Your task to perform on an android device: see tabs open on other devices in the chrome app Image 0: 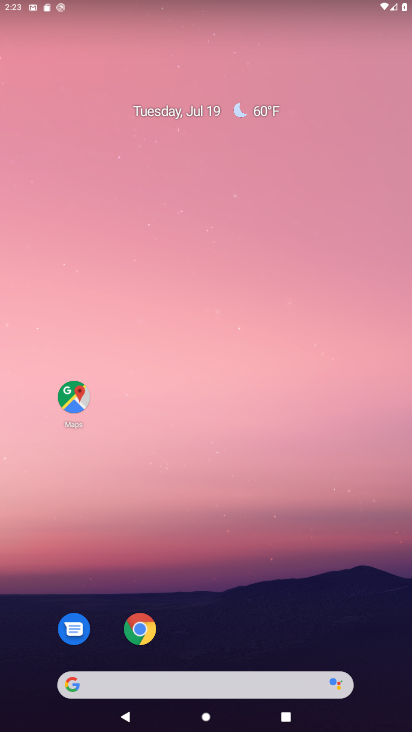
Step 0: drag from (279, 538) to (274, 247)
Your task to perform on an android device: see tabs open on other devices in the chrome app Image 1: 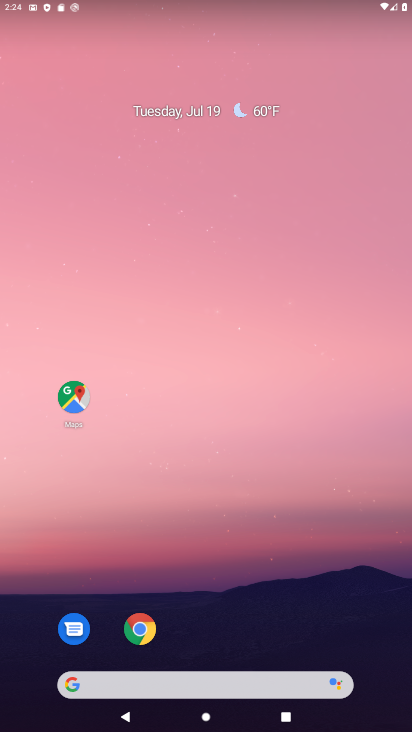
Step 1: click (137, 633)
Your task to perform on an android device: see tabs open on other devices in the chrome app Image 2: 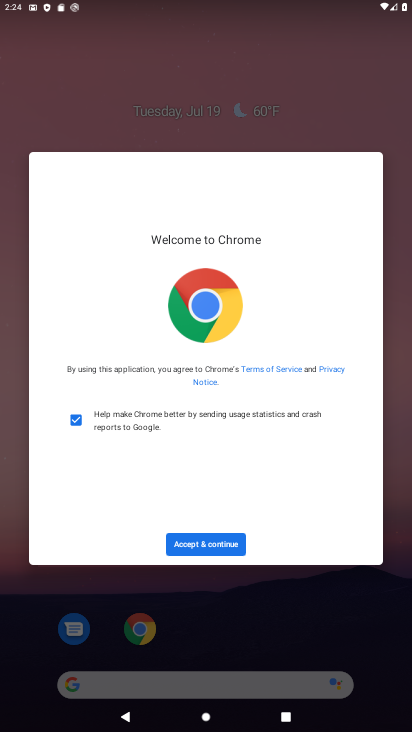
Step 2: click (236, 545)
Your task to perform on an android device: see tabs open on other devices in the chrome app Image 3: 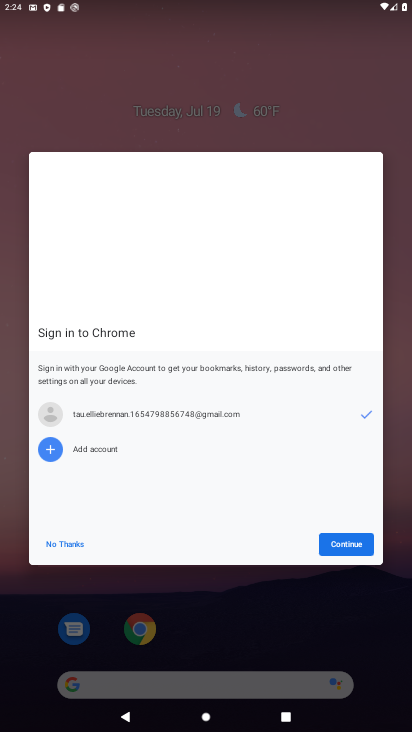
Step 3: click (360, 547)
Your task to perform on an android device: see tabs open on other devices in the chrome app Image 4: 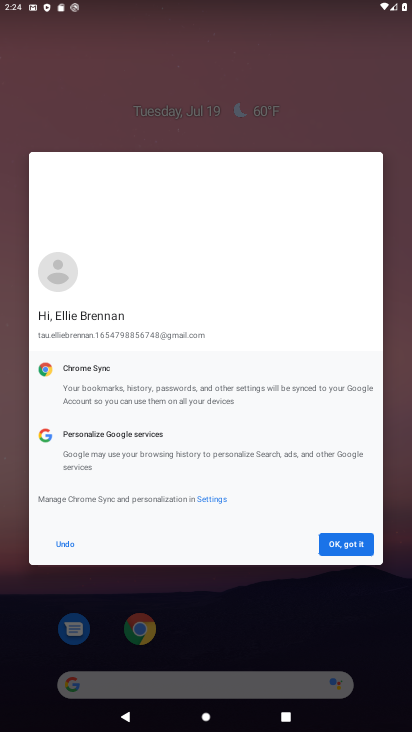
Step 4: click (360, 547)
Your task to perform on an android device: see tabs open on other devices in the chrome app Image 5: 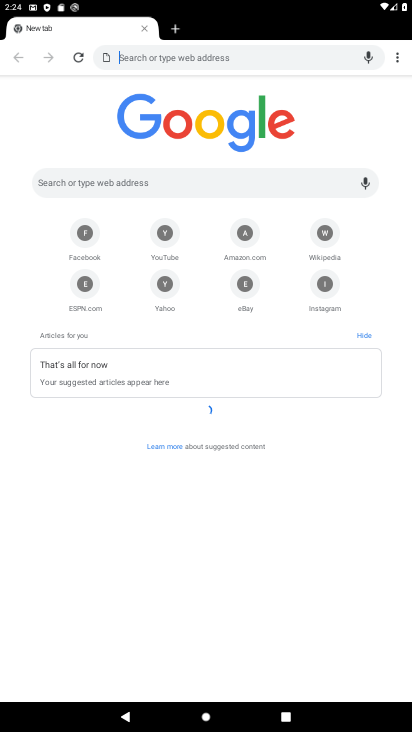
Step 5: click (174, 27)
Your task to perform on an android device: see tabs open on other devices in the chrome app Image 6: 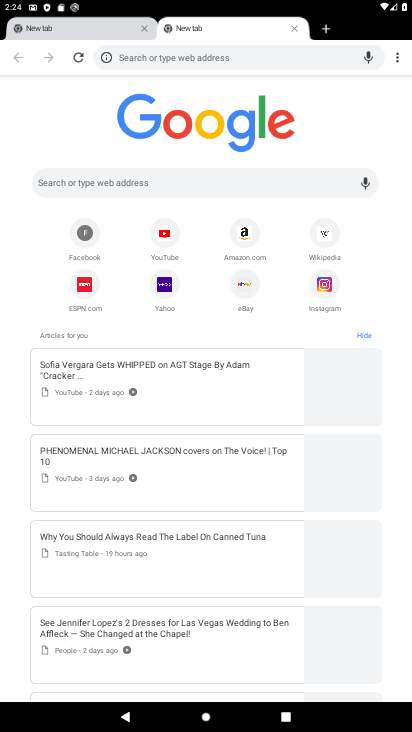
Step 6: task complete